Your task to perform on an android device: Set the phone to "Do not disturb". Image 0: 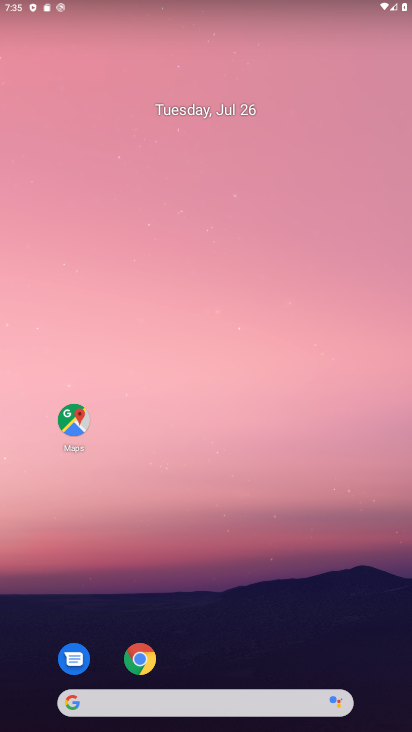
Step 0: drag from (205, 646) to (239, 58)
Your task to perform on an android device: Set the phone to "Do not disturb". Image 1: 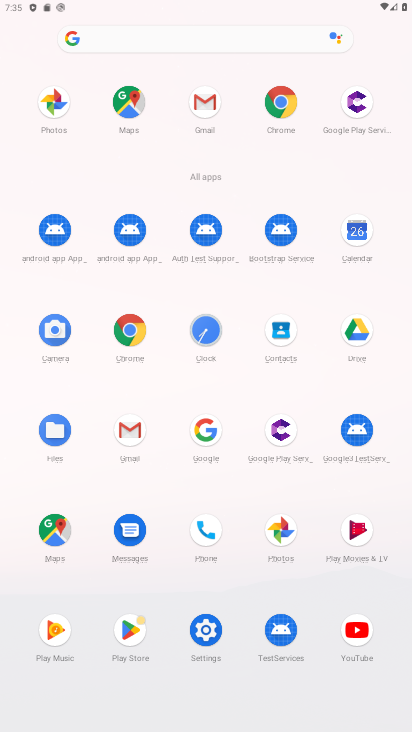
Step 1: click (206, 628)
Your task to perform on an android device: Set the phone to "Do not disturb". Image 2: 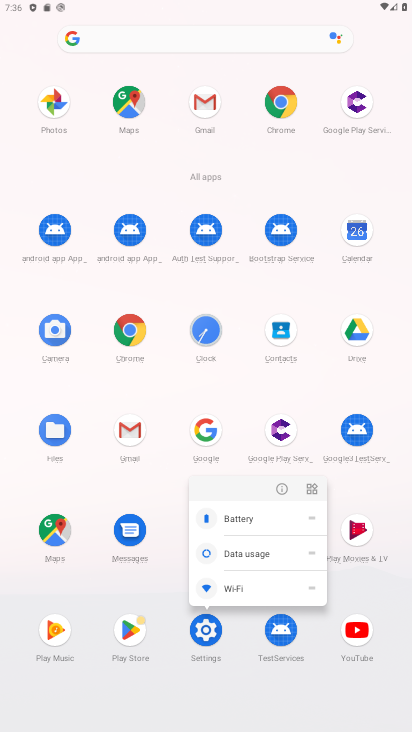
Step 2: click (286, 492)
Your task to perform on an android device: Set the phone to "Do not disturb". Image 3: 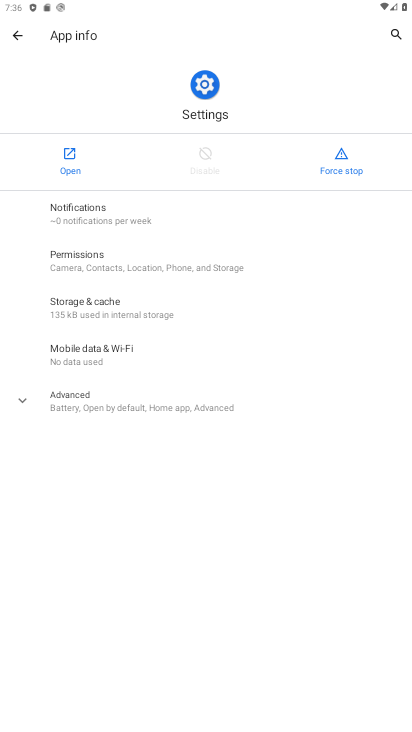
Step 3: click (70, 175)
Your task to perform on an android device: Set the phone to "Do not disturb". Image 4: 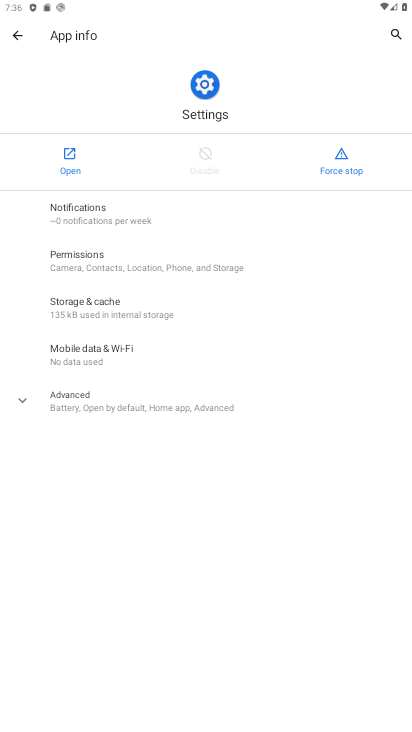
Step 4: click (70, 175)
Your task to perform on an android device: Set the phone to "Do not disturb". Image 5: 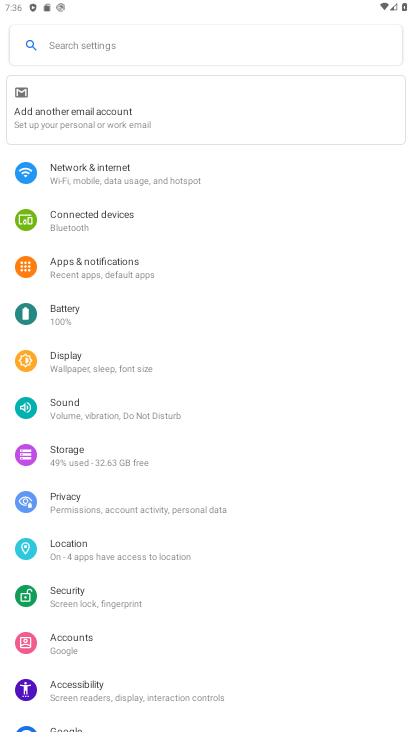
Step 5: drag from (164, 589) to (226, 263)
Your task to perform on an android device: Set the phone to "Do not disturb". Image 6: 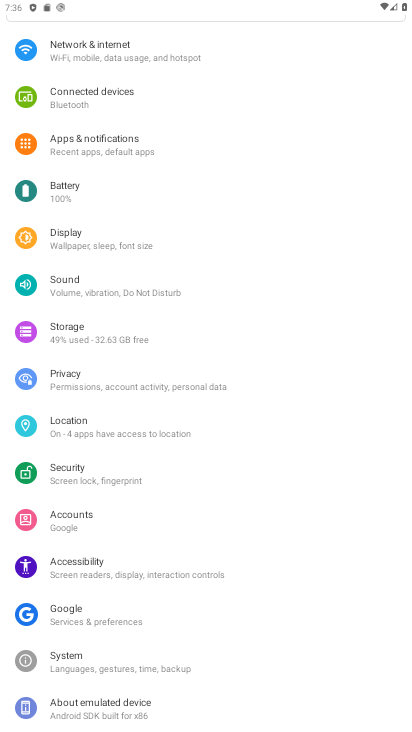
Step 6: drag from (222, 247) to (161, 731)
Your task to perform on an android device: Set the phone to "Do not disturb". Image 7: 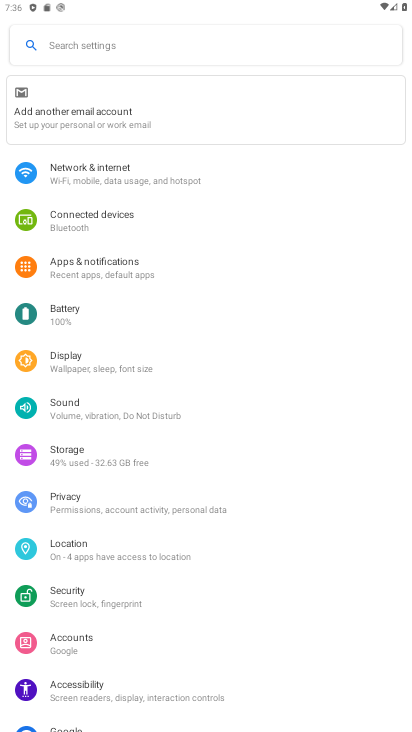
Step 7: click (139, 284)
Your task to perform on an android device: Set the phone to "Do not disturb". Image 8: 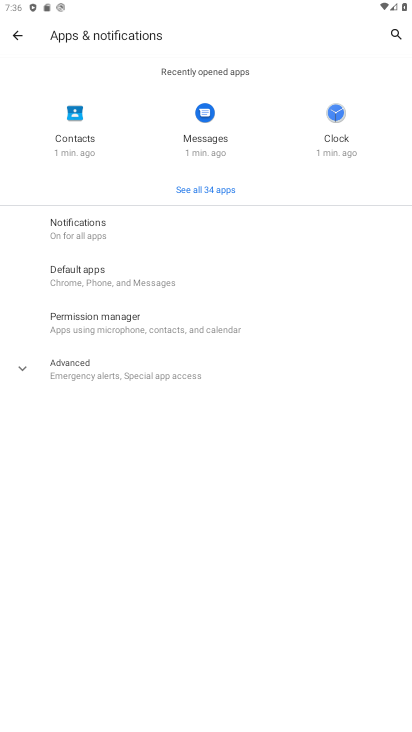
Step 8: click (126, 236)
Your task to perform on an android device: Set the phone to "Do not disturb". Image 9: 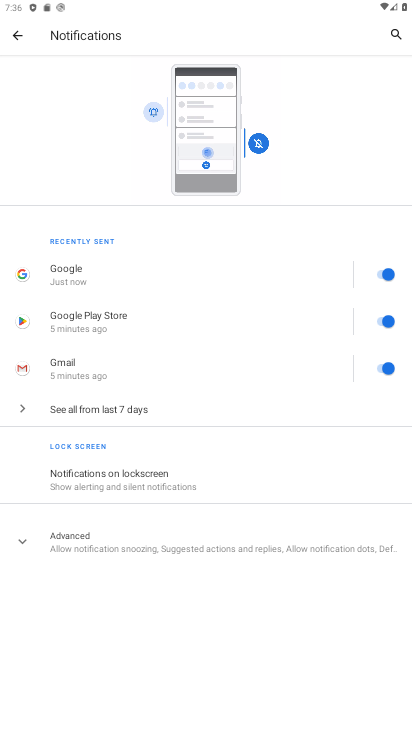
Step 9: click (127, 540)
Your task to perform on an android device: Set the phone to "Do not disturb". Image 10: 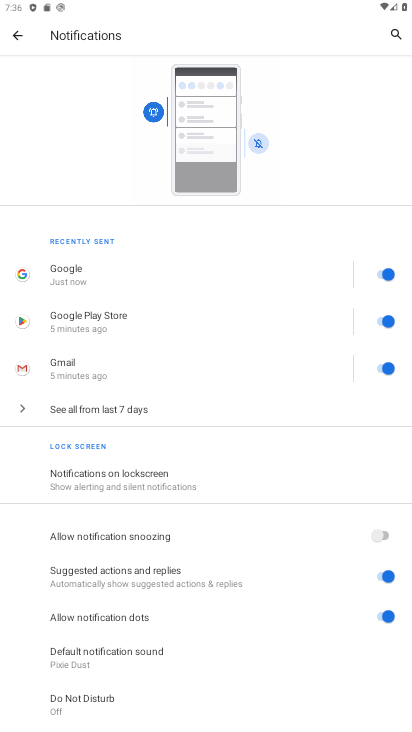
Step 10: drag from (182, 646) to (212, 158)
Your task to perform on an android device: Set the phone to "Do not disturb". Image 11: 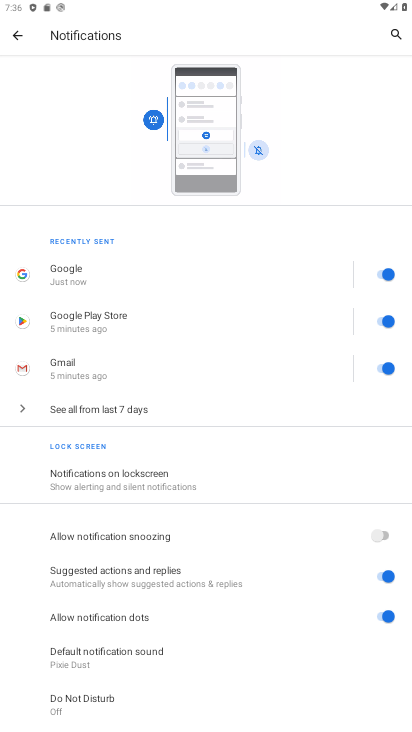
Step 11: click (126, 716)
Your task to perform on an android device: Set the phone to "Do not disturb". Image 12: 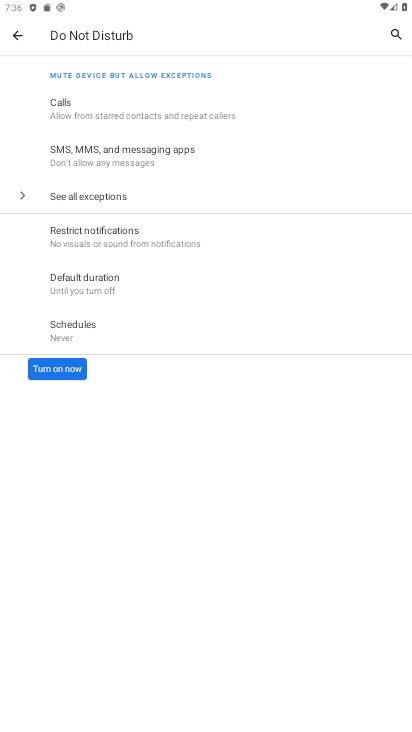
Step 12: click (59, 372)
Your task to perform on an android device: Set the phone to "Do not disturb". Image 13: 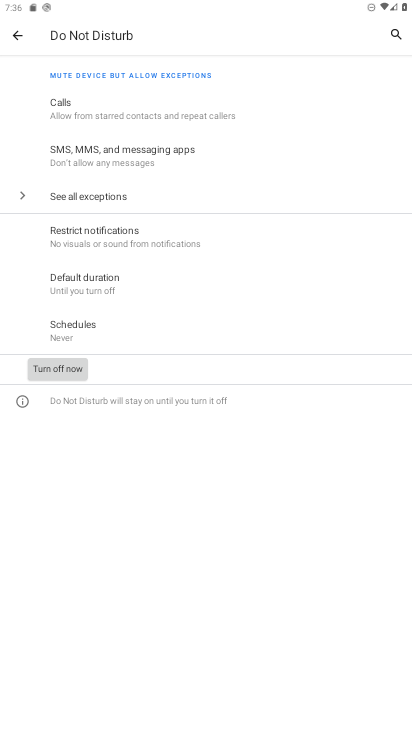
Step 13: task complete